Your task to perform on an android device: Open Reddit Image 0: 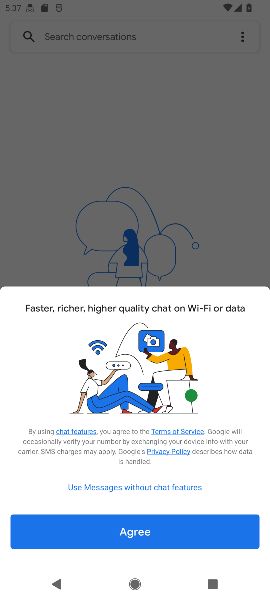
Step 0: press home button
Your task to perform on an android device: Open Reddit Image 1: 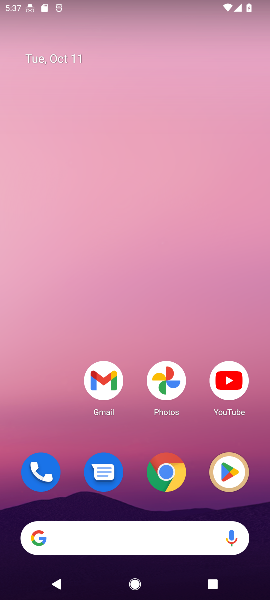
Step 1: click (230, 469)
Your task to perform on an android device: Open Reddit Image 2: 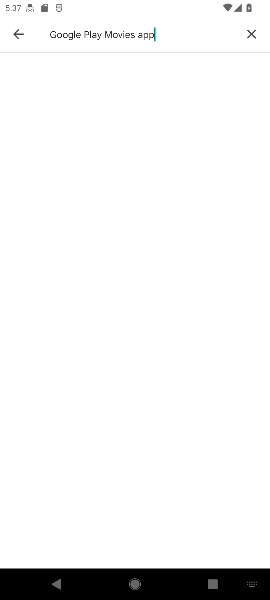
Step 2: click (257, 45)
Your task to perform on an android device: Open Reddit Image 3: 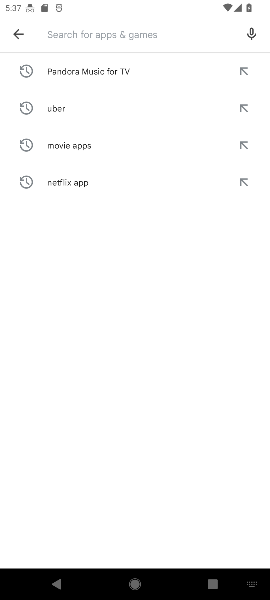
Step 3: type "reddit"
Your task to perform on an android device: Open Reddit Image 4: 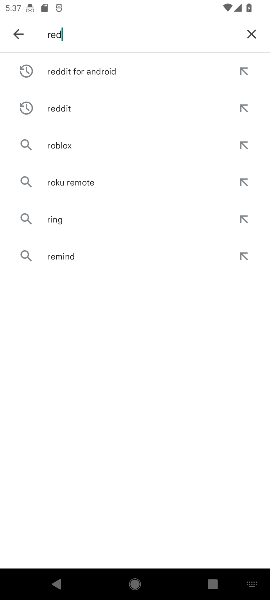
Step 4: type ""
Your task to perform on an android device: Open Reddit Image 5: 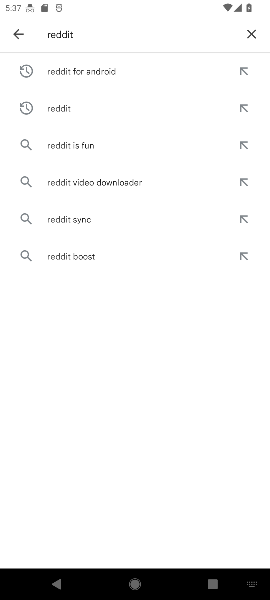
Step 5: click (56, 153)
Your task to perform on an android device: Open Reddit Image 6: 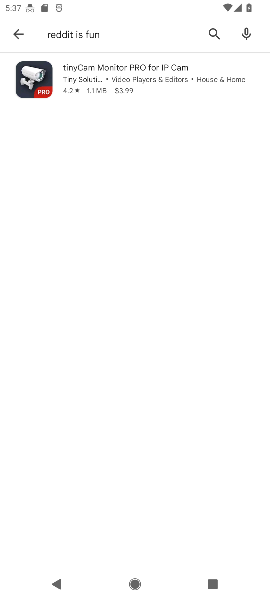
Step 6: click (219, 35)
Your task to perform on an android device: Open Reddit Image 7: 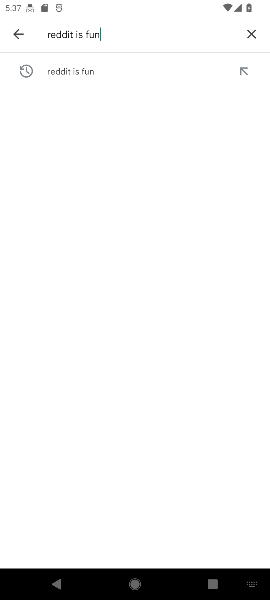
Step 7: click (247, 40)
Your task to perform on an android device: Open Reddit Image 8: 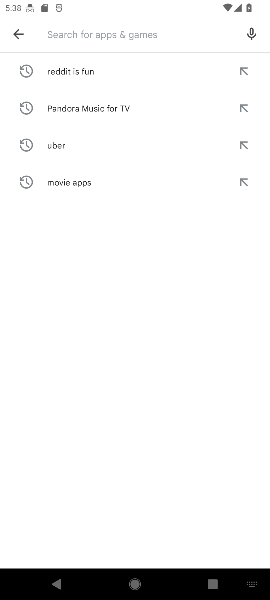
Step 8: type "reddit"
Your task to perform on an android device: Open Reddit Image 9: 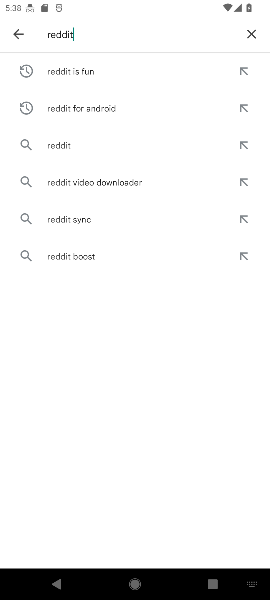
Step 9: click (179, 118)
Your task to perform on an android device: Open Reddit Image 10: 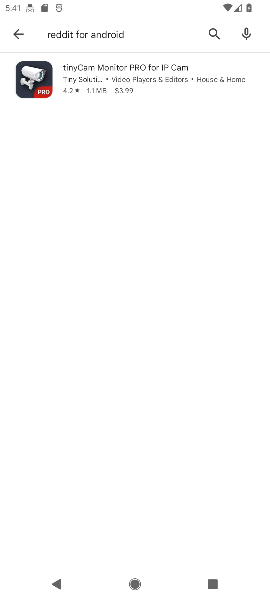
Step 10: task complete